Your task to perform on an android device: Open Google Maps and go to "Timeline" Image 0: 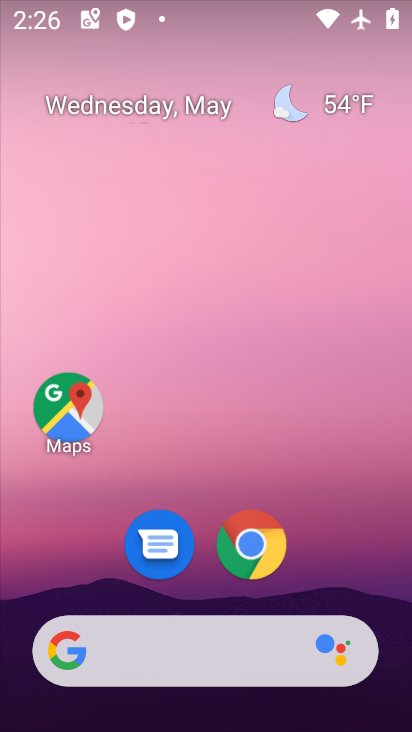
Step 0: click (60, 407)
Your task to perform on an android device: Open Google Maps and go to "Timeline" Image 1: 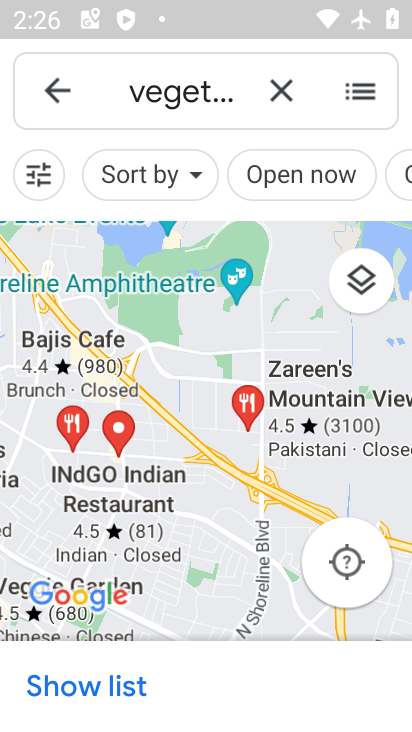
Step 1: click (59, 114)
Your task to perform on an android device: Open Google Maps and go to "Timeline" Image 2: 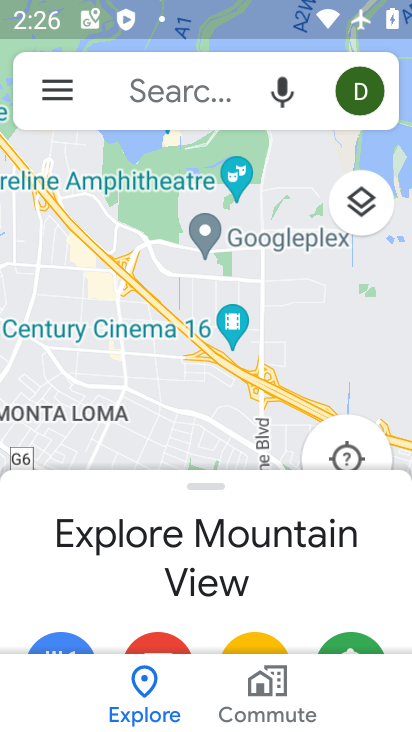
Step 2: click (59, 114)
Your task to perform on an android device: Open Google Maps and go to "Timeline" Image 3: 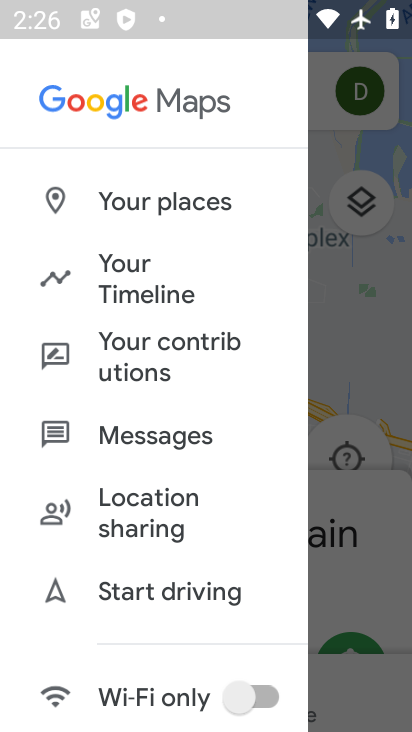
Step 3: click (134, 264)
Your task to perform on an android device: Open Google Maps and go to "Timeline" Image 4: 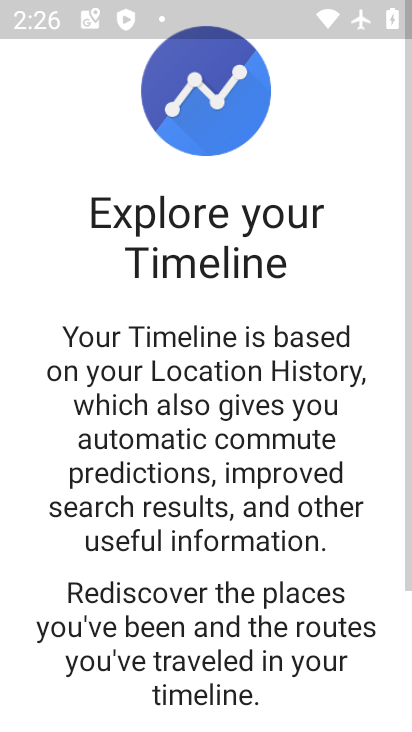
Step 4: drag from (341, 606) to (319, 78)
Your task to perform on an android device: Open Google Maps and go to "Timeline" Image 5: 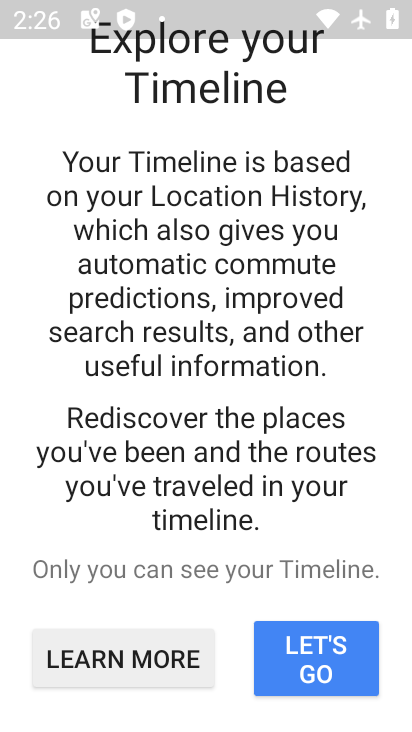
Step 5: click (331, 648)
Your task to perform on an android device: Open Google Maps and go to "Timeline" Image 6: 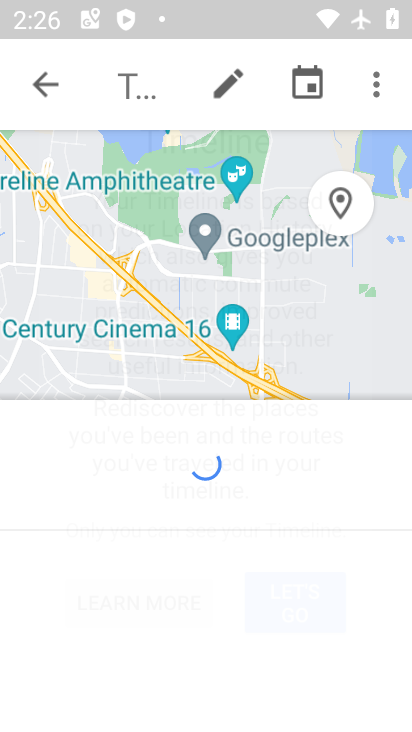
Step 6: click (331, 648)
Your task to perform on an android device: Open Google Maps and go to "Timeline" Image 7: 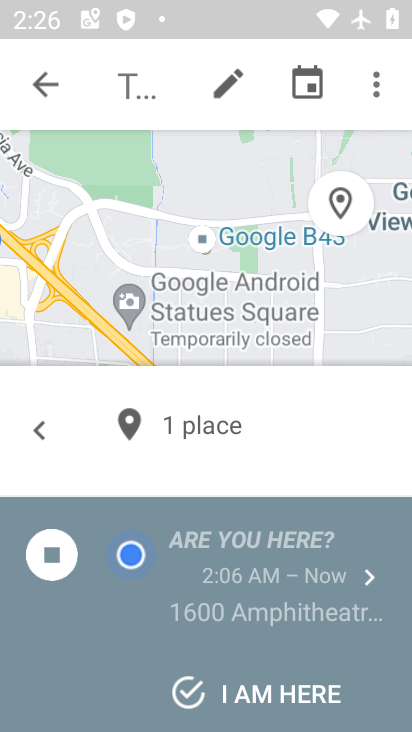
Step 7: task complete